Your task to perform on an android device: stop showing notifications on the lock screen Image 0: 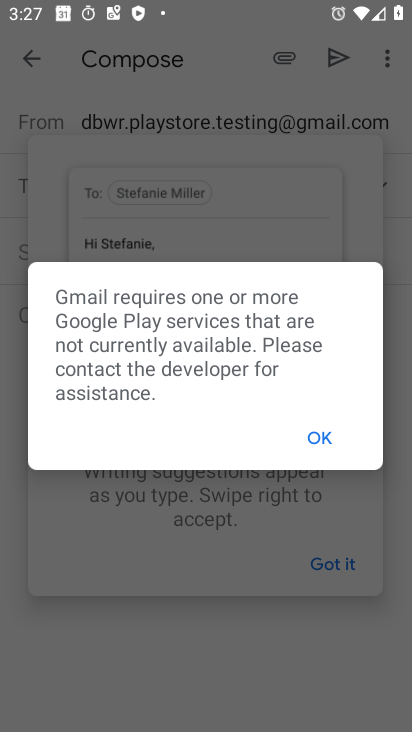
Step 0: press back button
Your task to perform on an android device: stop showing notifications on the lock screen Image 1: 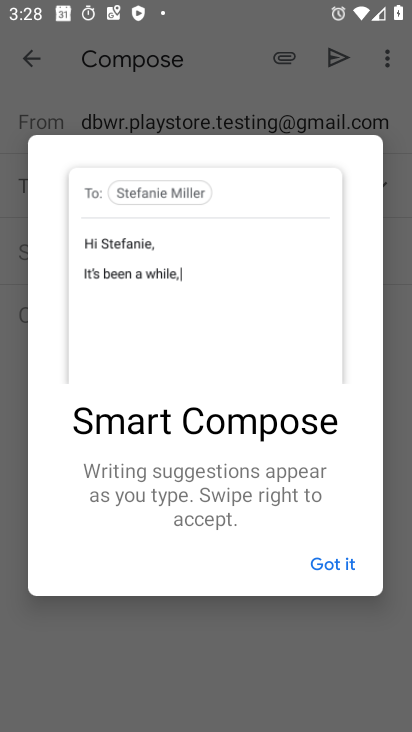
Step 1: press home button
Your task to perform on an android device: stop showing notifications on the lock screen Image 2: 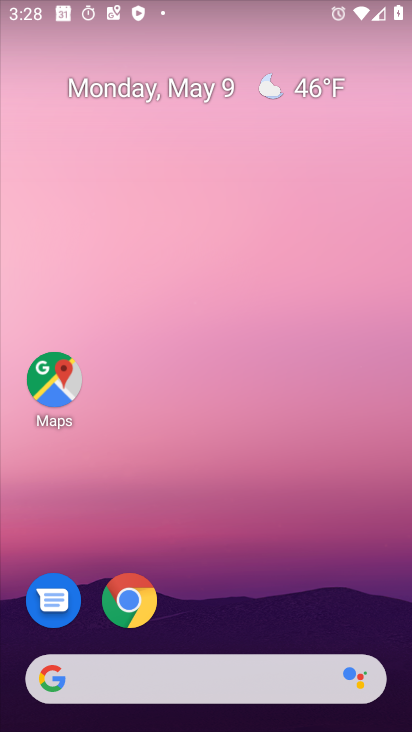
Step 2: drag from (228, 595) to (298, 20)
Your task to perform on an android device: stop showing notifications on the lock screen Image 3: 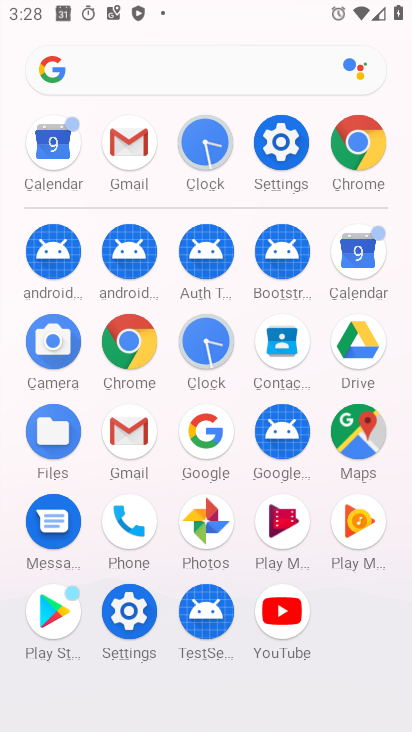
Step 3: click (280, 154)
Your task to perform on an android device: stop showing notifications on the lock screen Image 4: 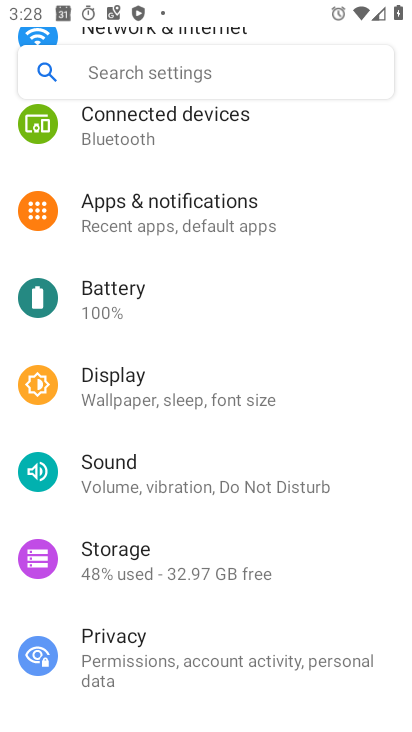
Step 4: click (196, 209)
Your task to perform on an android device: stop showing notifications on the lock screen Image 5: 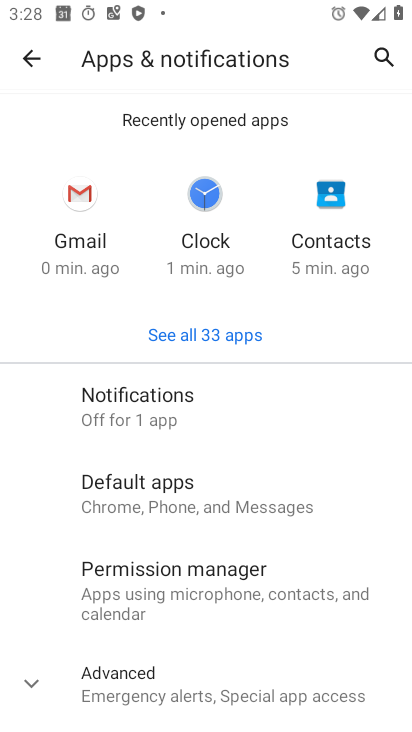
Step 5: click (145, 402)
Your task to perform on an android device: stop showing notifications on the lock screen Image 6: 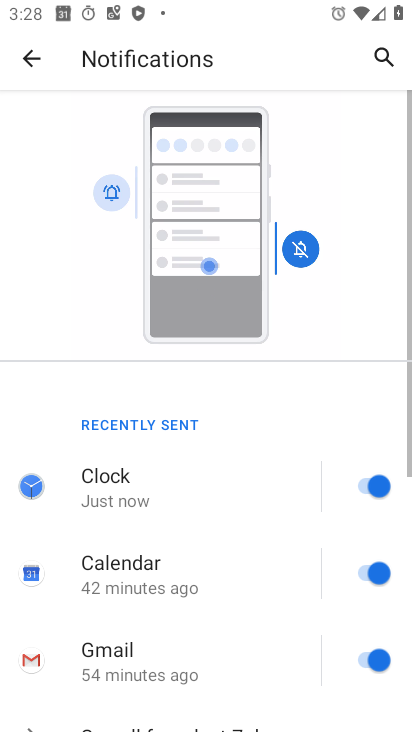
Step 6: drag from (166, 607) to (186, 82)
Your task to perform on an android device: stop showing notifications on the lock screen Image 7: 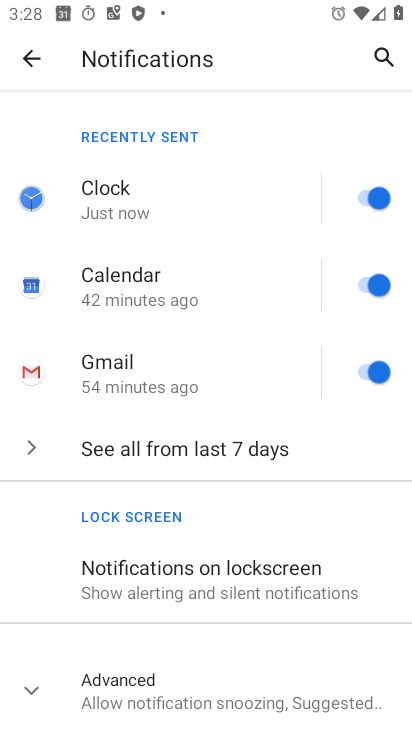
Step 7: click (168, 590)
Your task to perform on an android device: stop showing notifications on the lock screen Image 8: 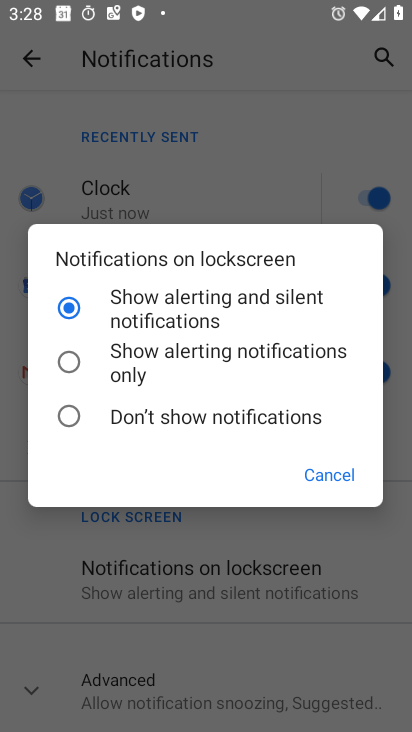
Step 8: click (67, 414)
Your task to perform on an android device: stop showing notifications on the lock screen Image 9: 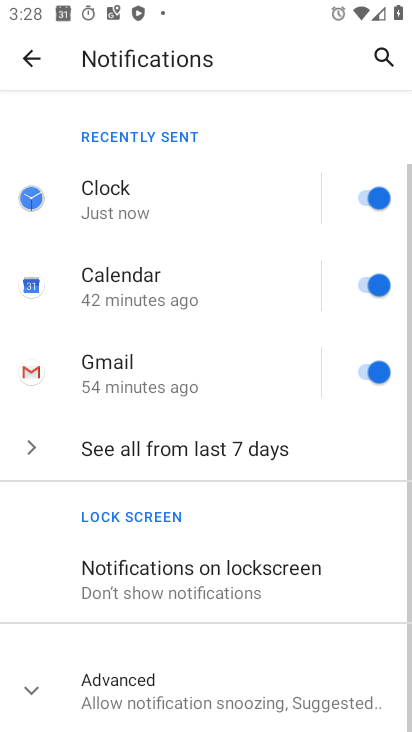
Step 9: task complete